Your task to perform on an android device: Go to Amazon Image 0: 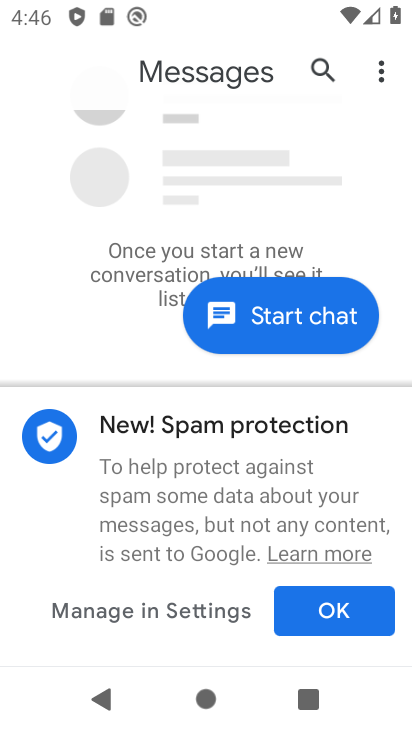
Step 0: press home button
Your task to perform on an android device: Go to Amazon Image 1: 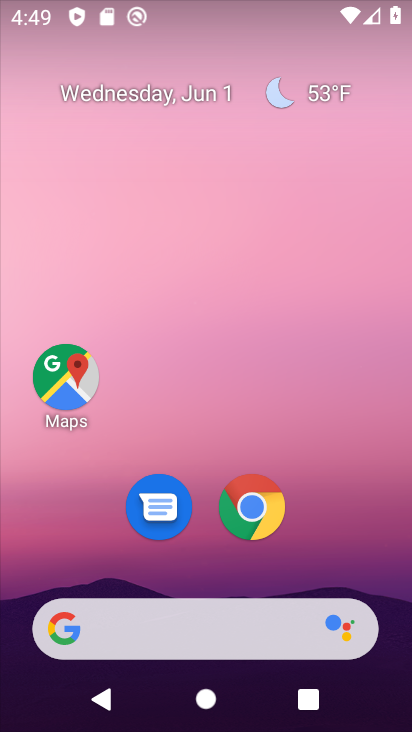
Step 1: drag from (326, 523) to (390, 1)
Your task to perform on an android device: Go to Amazon Image 2: 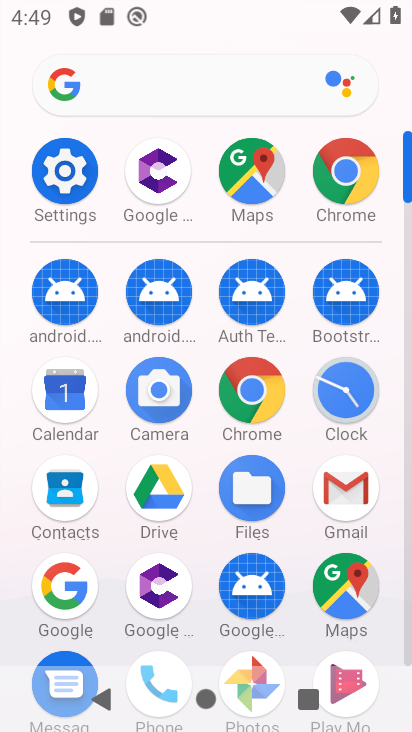
Step 2: click (352, 171)
Your task to perform on an android device: Go to Amazon Image 3: 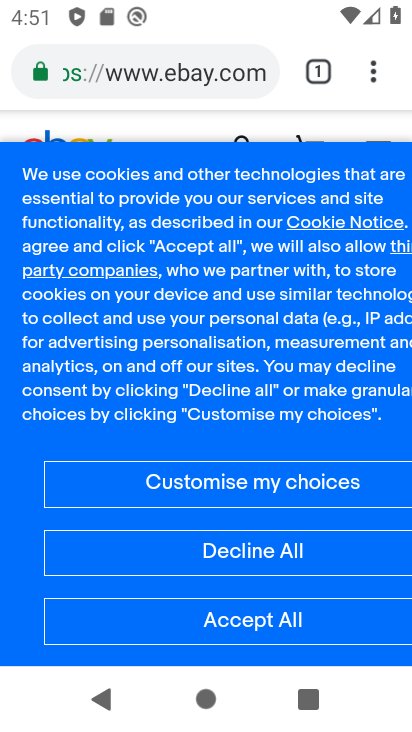
Step 3: click (168, 66)
Your task to perform on an android device: Go to Amazon Image 4: 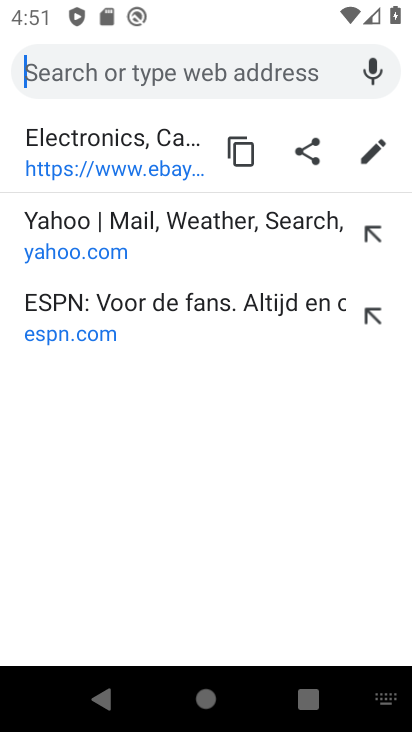
Step 4: type "amazon"
Your task to perform on an android device: Go to Amazon Image 5: 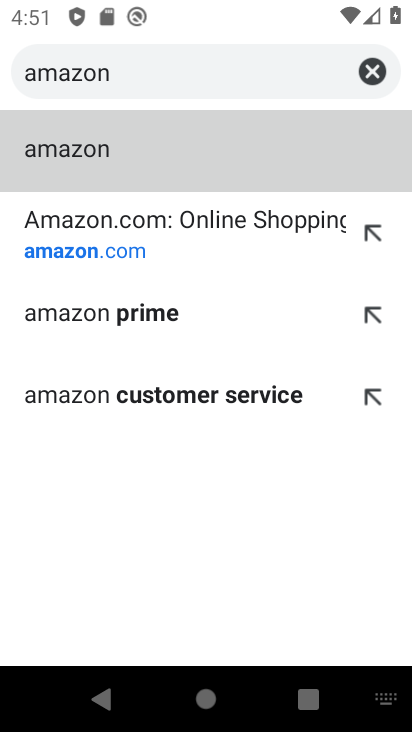
Step 5: click (59, 227)
Your task to perform on an android device: Go to Amazon Image 6: 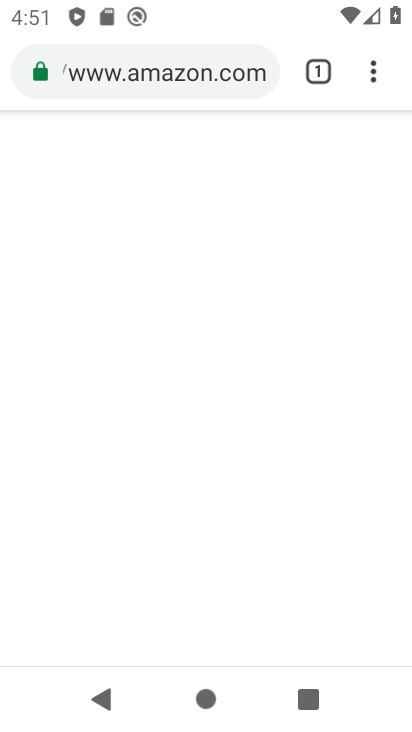
Step 6: task complete